Your task to perform on an android device: turn on airplane mode Image 0: 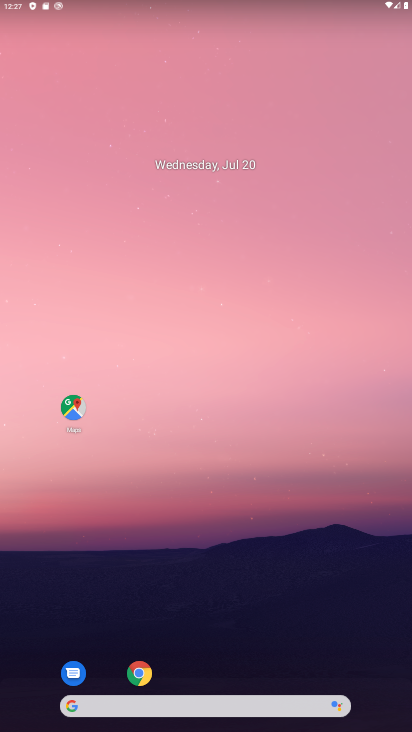
Step 0: drag from (170, 9) to (172, 553)
Your task to perform on an android device: turn on airplane mode Image 1: 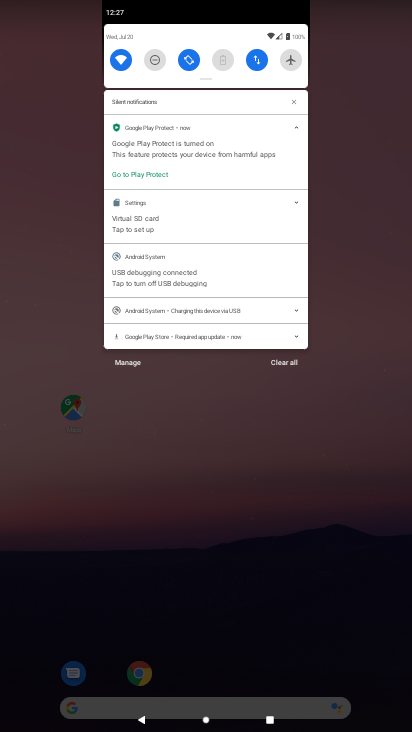
Step 1: click (298, 60)
Your task to perform on an android device: turn on airplane mode Image 2: 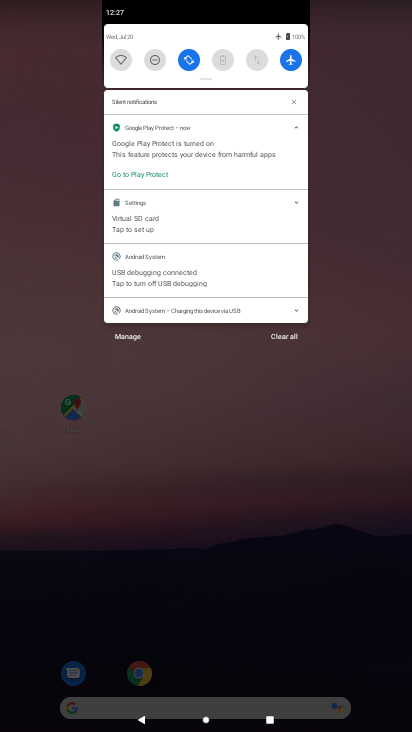
Step 2: task complete